Your task to perform on an android device: Go to CNN.com Image 0: 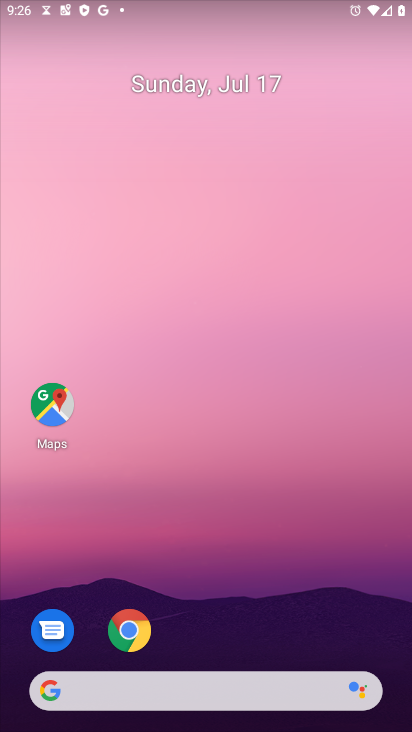
Step 0: click (125, 633)
Your task to perform on an android device: Go to CNN.com Image 1: 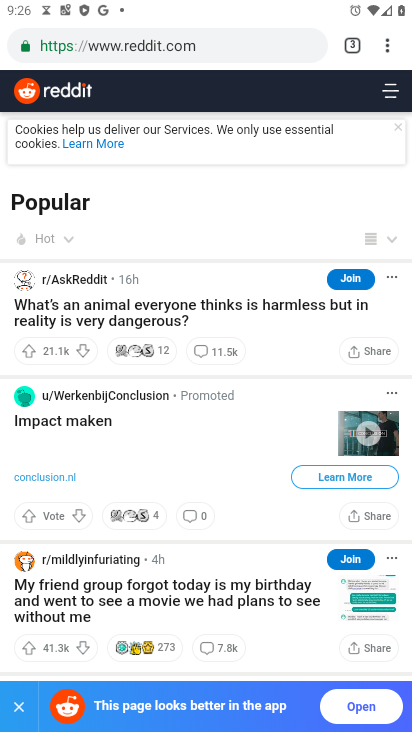
Step 1: click (176, 47)
Your task to perform on an android device: Go to CNN.com Image 2: 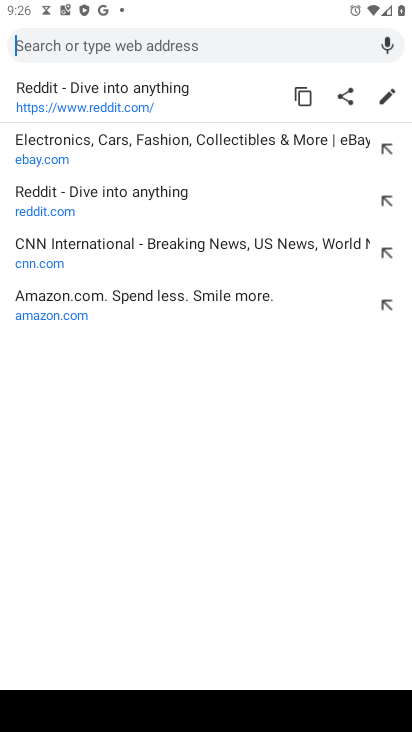
Step 2: type "www.cnn.com"
Your task to perform on an android device: Go to CNN.com Image 3: 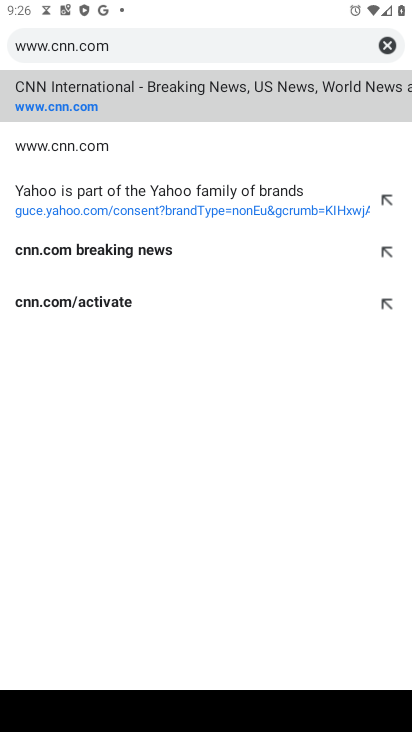
Step 3: click (60, 98)
Your task to perform on an android device: Go to CNN.com Image 4: 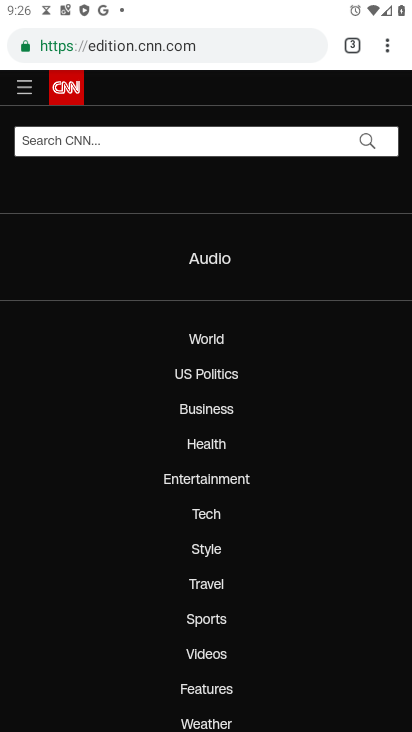
Step 4: task complete